Your task to perform on an android device: see sites visited before in the chrome app Image 0: 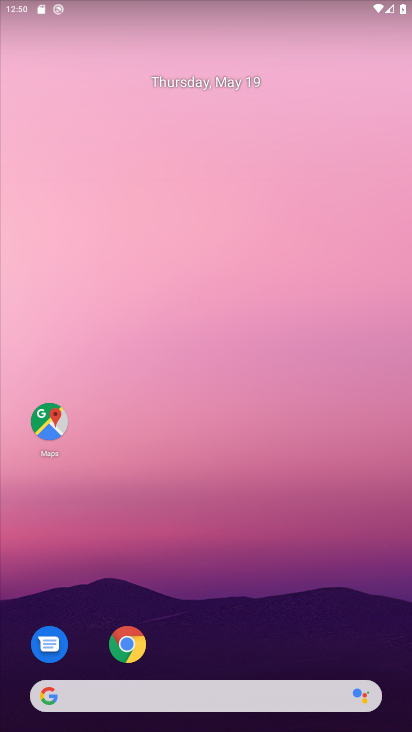
Step 0: click (128, 641)
Your task to perform on an android device: see sites visited before in the chrome app Image 1: 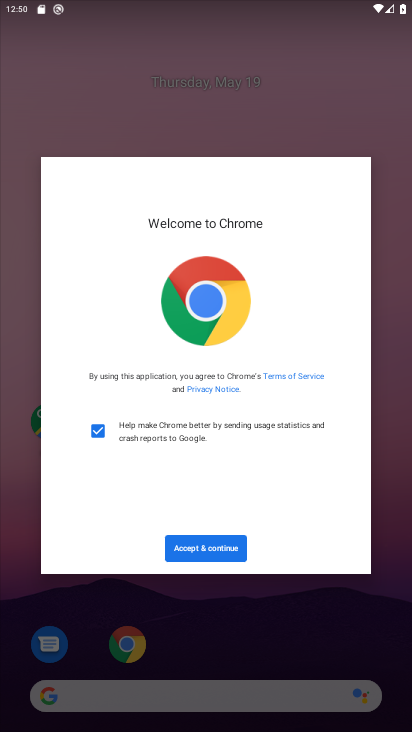
Step 1: click (208, 544)
Your task to perform on an android device: see sites visited before in the chrome app Image 2: 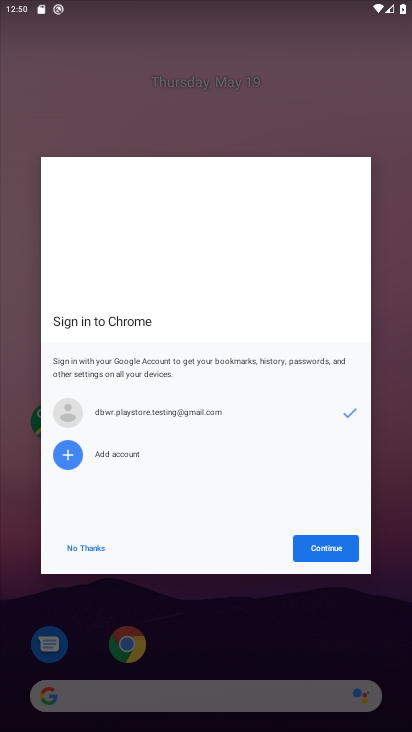
Step 2: click (322, 548)
Your task to perform on an android device: see sites visited before in the chrome app Image 3: 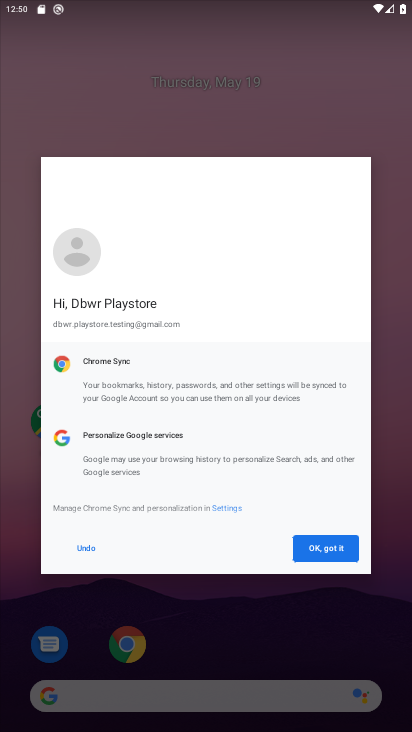
Step 3: click (310, 548)
Your task to perform on an android device: see sites visited before in the chrome app Image 4: 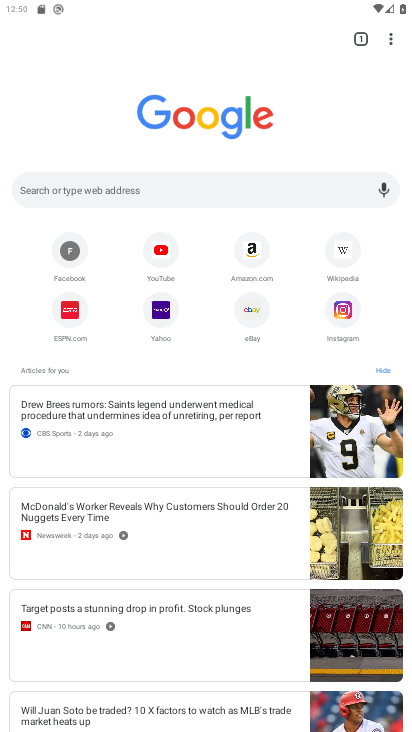
Step 4: click (388, 40)
Your task to perform on an android device: see sites visited before in the chrome app Image 5: 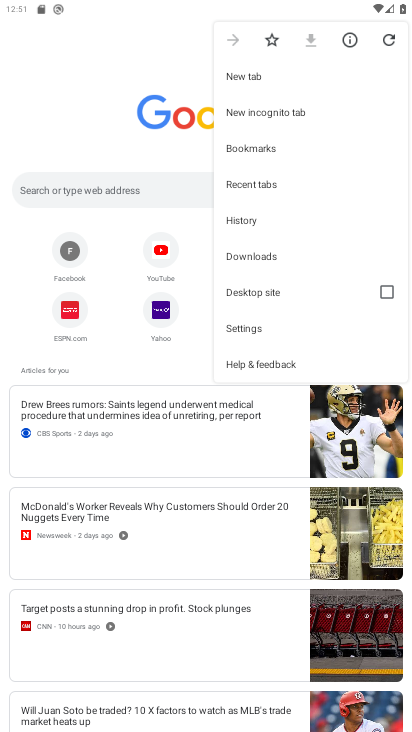
Step 5: click (249, 185)
Your task to perform on an android device: see sites visited before in the chrome app Image 6: 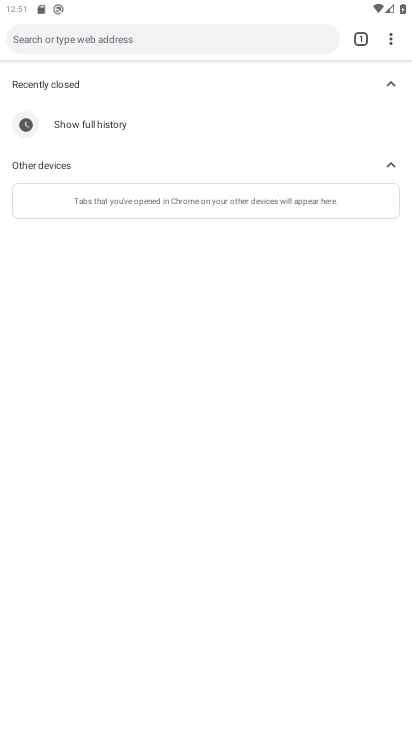
Step 6: task complete